Your task to perform on an android device: Go to display settings Image 0: 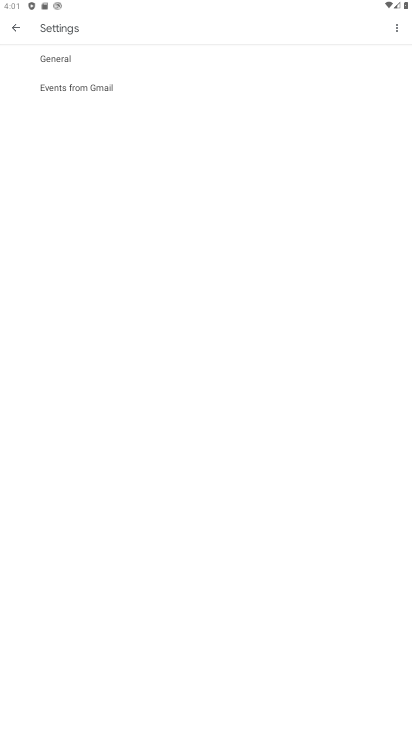
Step 0: press home button
Your task to perform on an android device: Go to display settings Image 1: 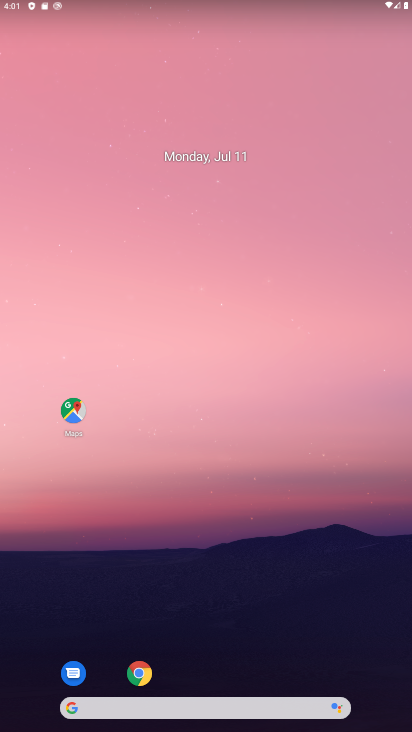
Step 1: drag from (283, 625) to (249, 124)
Your task to perform on an android device: Go to display settings Image 2: 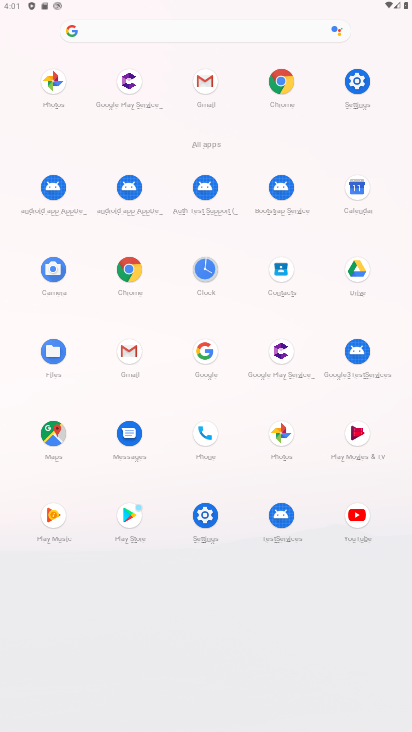
Step 2: click (361, 80)
Your task to perform on an android device: Go to display settings Image 3: 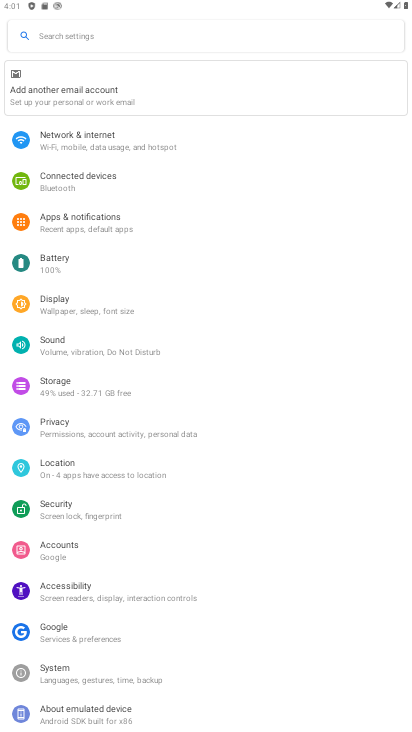
Step 3: click (64, 304)
Your task to perform on an android device: Go to display settings Image 4: 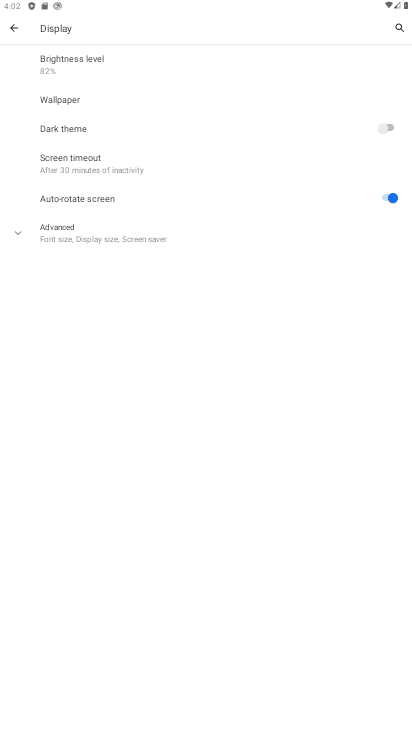
Step 4: task complete